Your task to perform on an android device: Go to Yahoo.com Image 0: 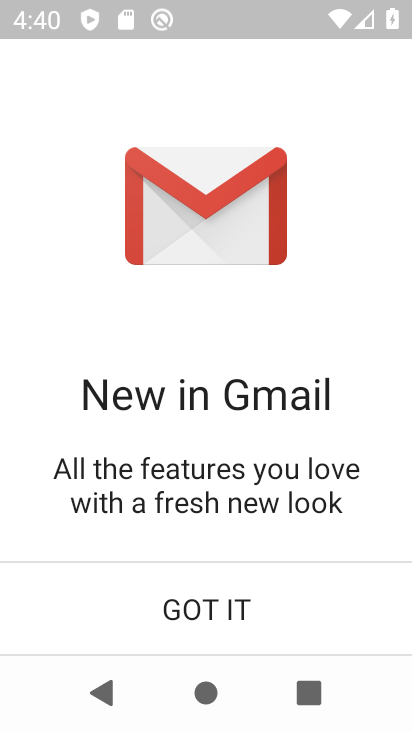
Step 0: press back button
Your task to perform on an android device: Go to Yahoo.com Image 1: 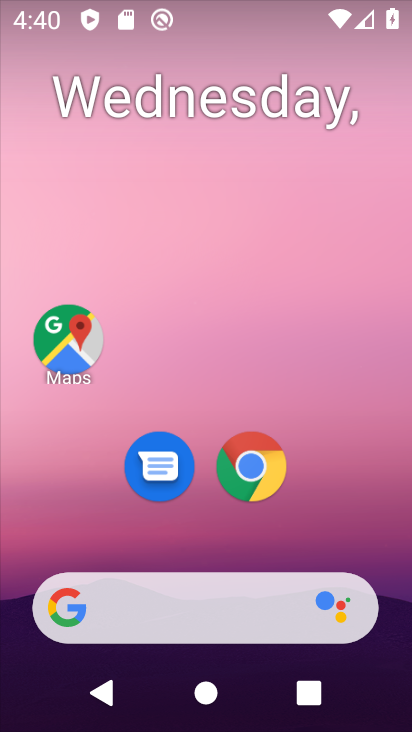
Step 1: drag from (342, 504) to (281, 17)
Your task to perform on an android device: Go to Yahoo.com Image 2: 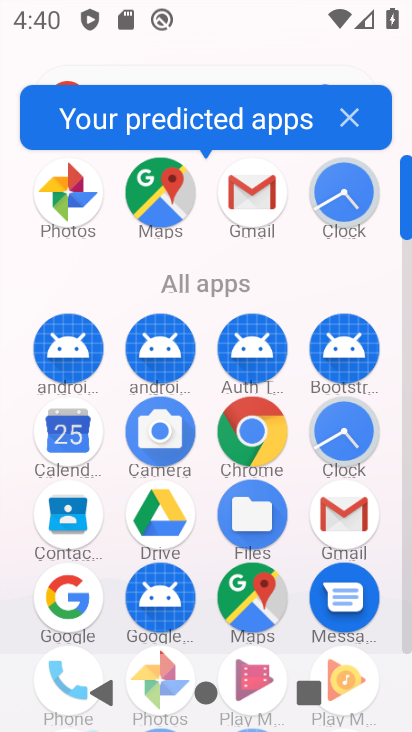
Step 2: drag from (17, 543) to (12, 238)
Your task to perform on an android device: Go to Yahoo.com Image 3: 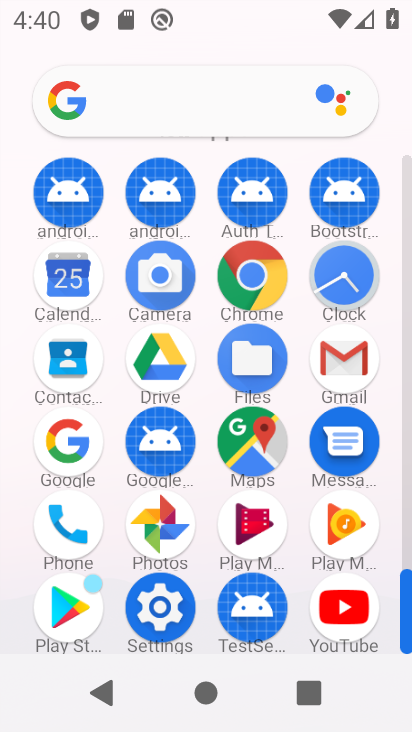
Step 3: click (249, 267)
Your task to perform on an android device: Go to Yahoo.com Image 4: 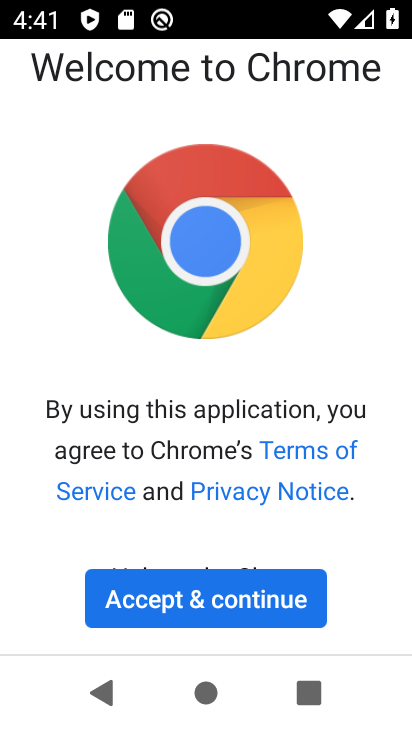
Step 4: click (168, 582)
Your task to perform on an android device: Go to Yahoo.com Image 5: 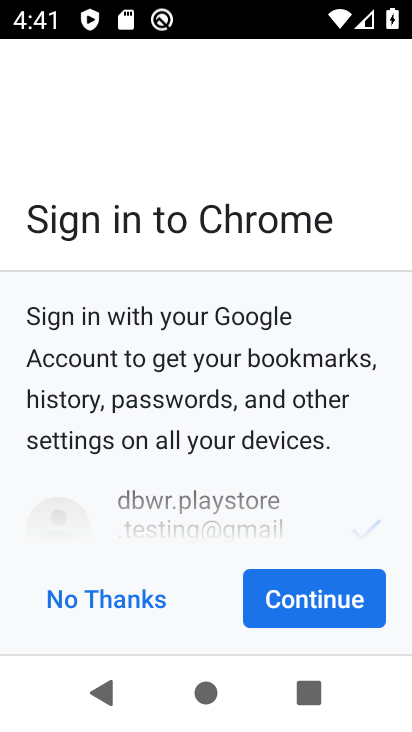
Step 5: click (292, 594)
Your task to perform on an android device: Go to Yahoo.com Image 6: 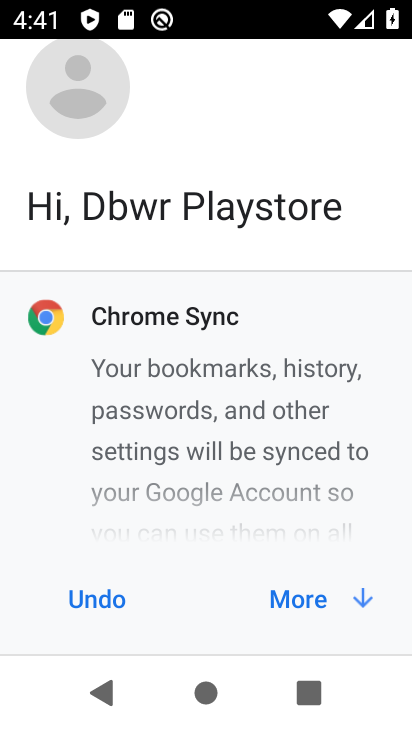
Step 6: click (292, 594)
Your task to perform on an android device: Go to Yahoo.com Image 7: 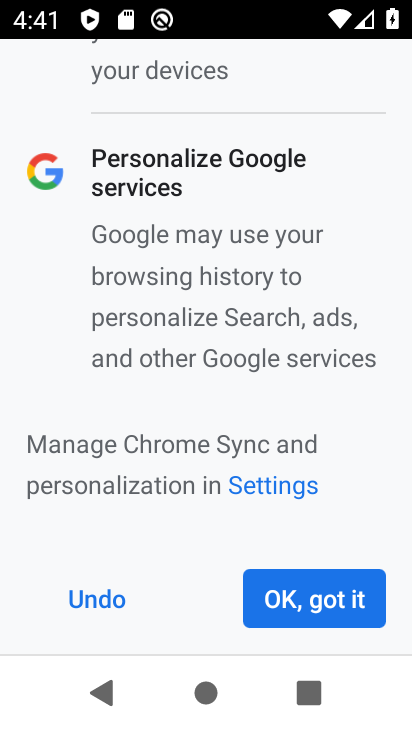
Step 7: click (292, 594)
Your task to perform on an android device: Go to Yahoo.com Image 8: 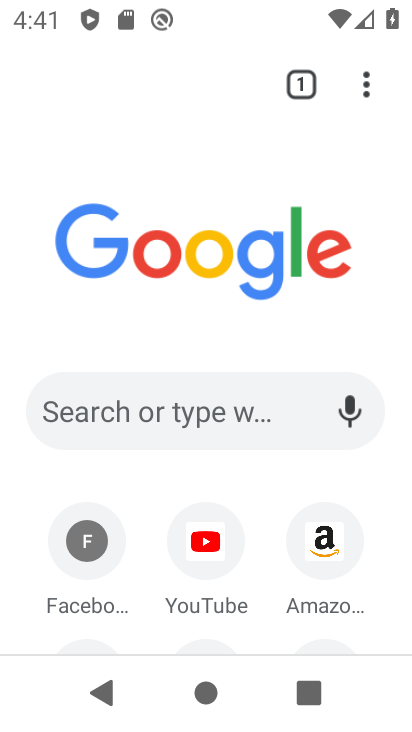
Step 8: click (164, 415)
Your task to perform on an android device: Go to Yahoo.com Image 9: 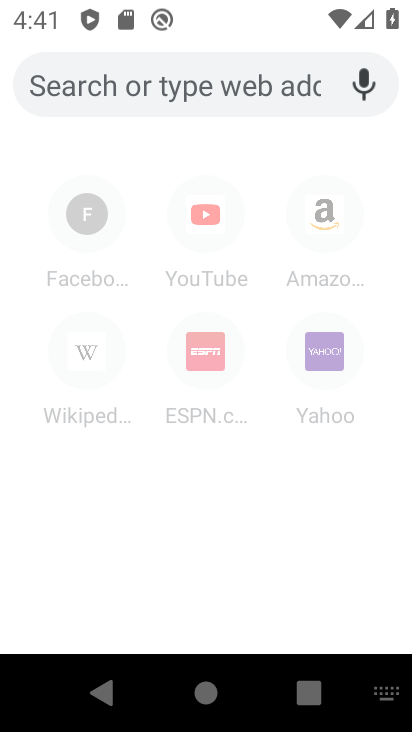
Step 9: click (324, 364)
Your task to perform on an android device: Go to Yahoo.com Image 10: 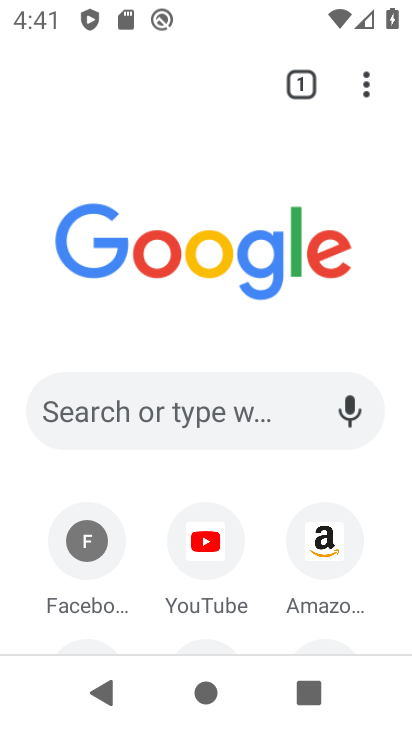
Step 10: click (326, 642)
Your task to perform on an android device: Go to Yahoo.com Image 11: 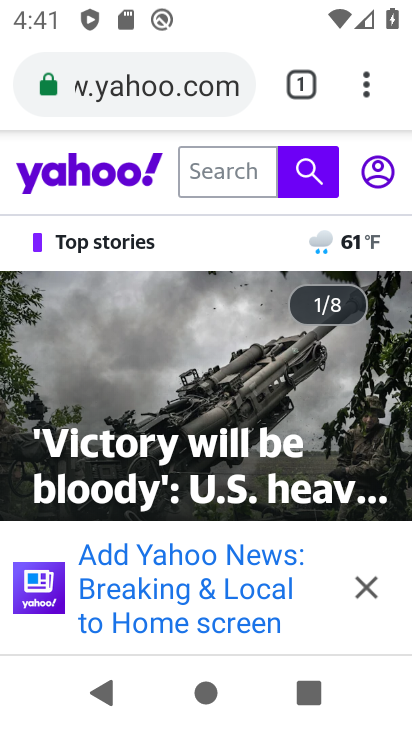
Step 11: task complete